Your task to perform on an android device: allow notifications from all sites in the chrome app Image 0: 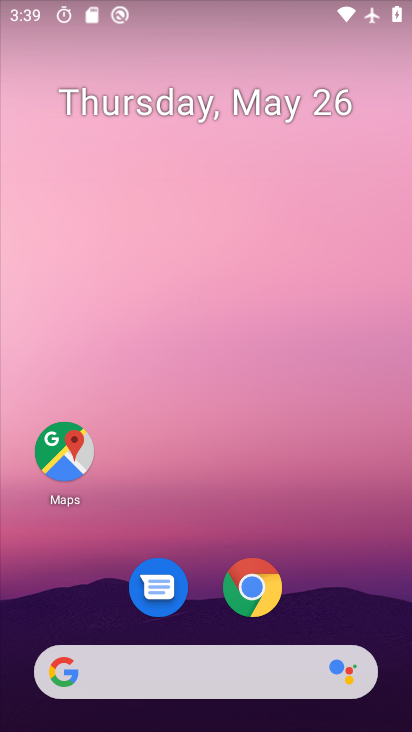
Step 0: drag from (260, 682) to (81, 52)
Your task to perform on an android device: allow notifications from all sites in the chrome app Image 1: 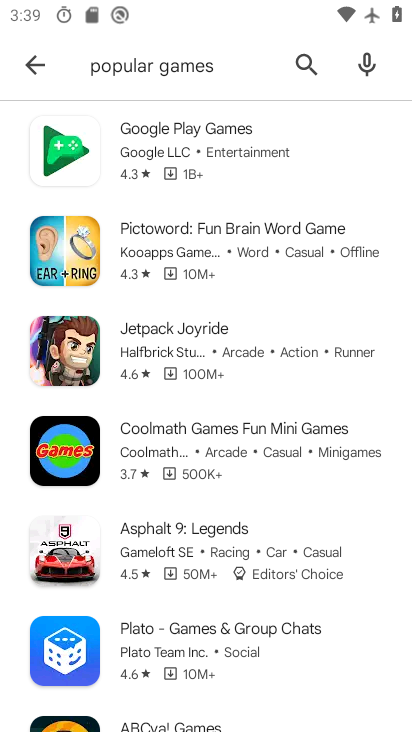
Step 1: drag from (280, 516) to (213, 62)
Your task to perform on an android device: allow notifications from all sites in the chrome app Image 2: 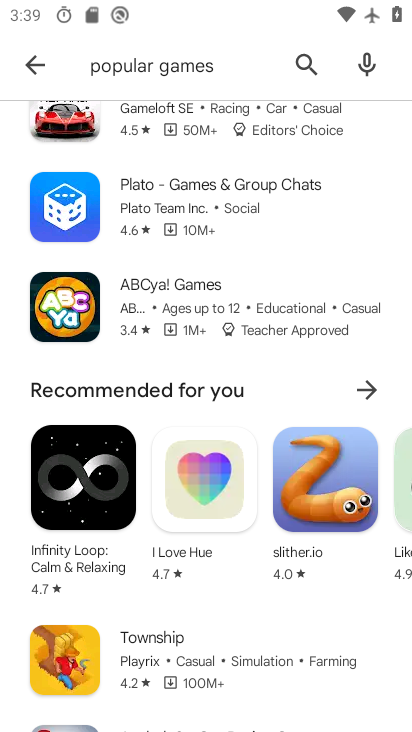
Step 2: click (15, 50)
Your task to perform on an android device: allow notifications from all sites in the chrome app Image 3: 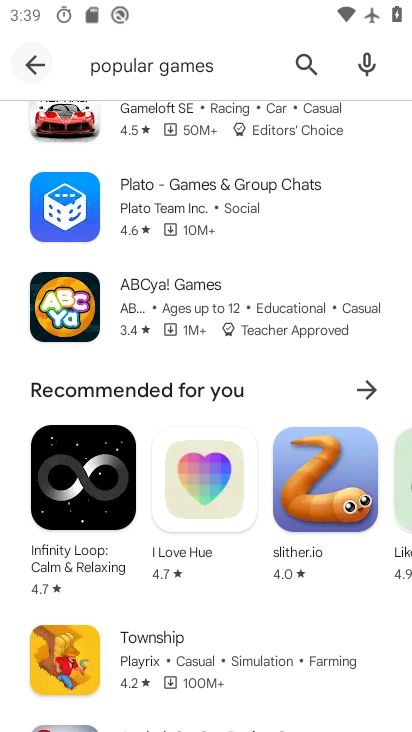
Step 3: click (25, 58)
Your task to perform on an android device: allow notifications from all sites in the chrome app Image 4: 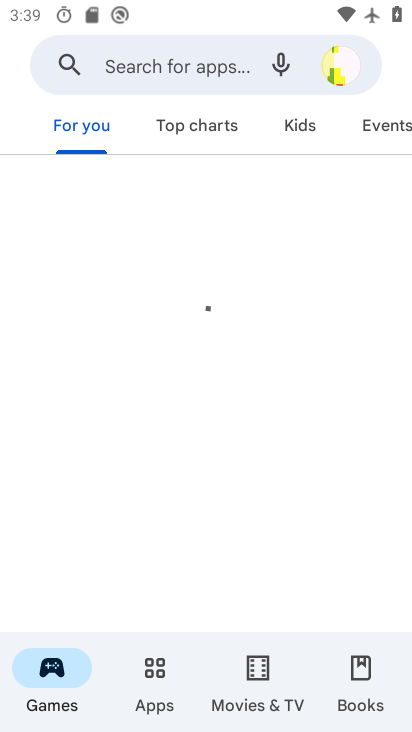
Step 4: click (28, 56)
Your task to perform on an android device: allow notifications from all sites in the chrome app Image 5: 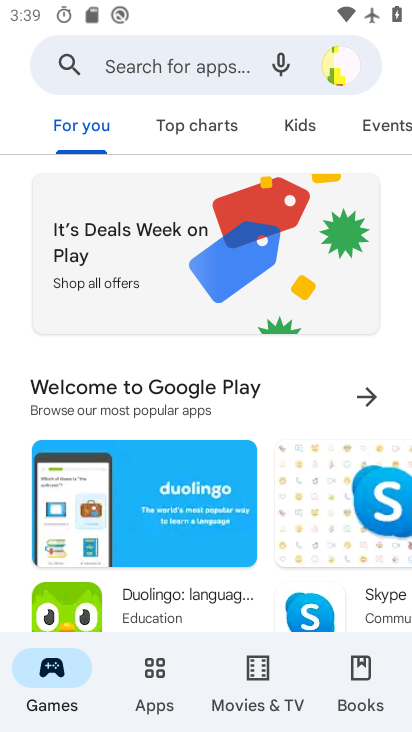
Step 5: press back button
Your task to perform on an android device: allow notifications from all sites in the chrome app Image 6: 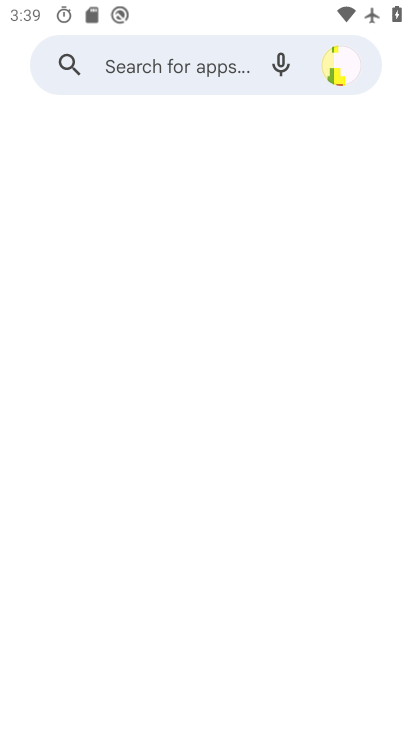
Step 6: press back button
Your task to perform on an android device: allow notifications from all sites in the chrome app Image 7: 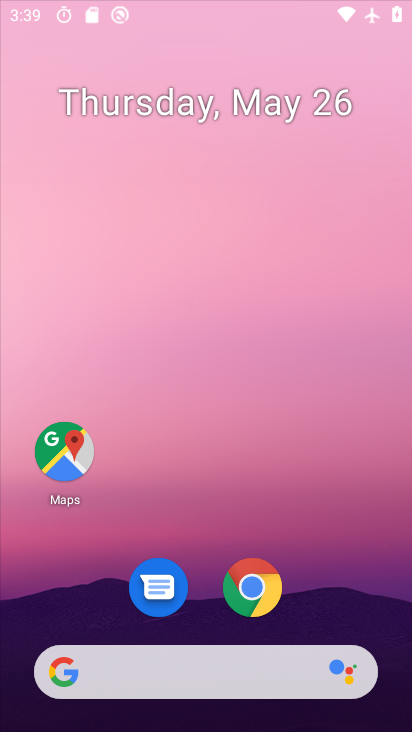
Step 7: press back button
Your task to perform on an android device: allow notifications from all sites in the chrome app Image 8: 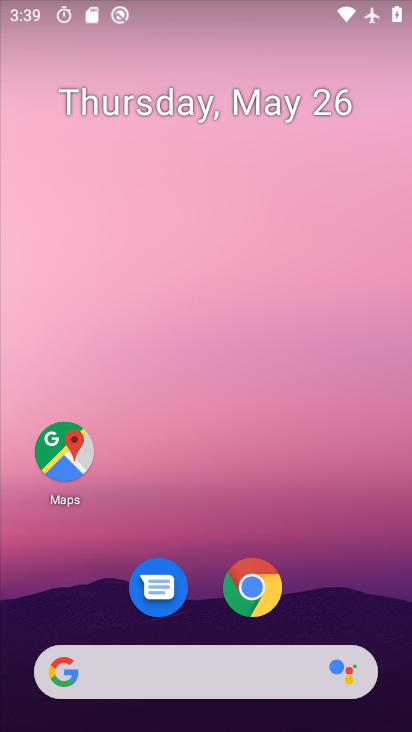
Step 8: drag from (271, 698) to (114, 106)
Your task to perform on an android device: allow notifications from all sites in the chrome app Image 9: 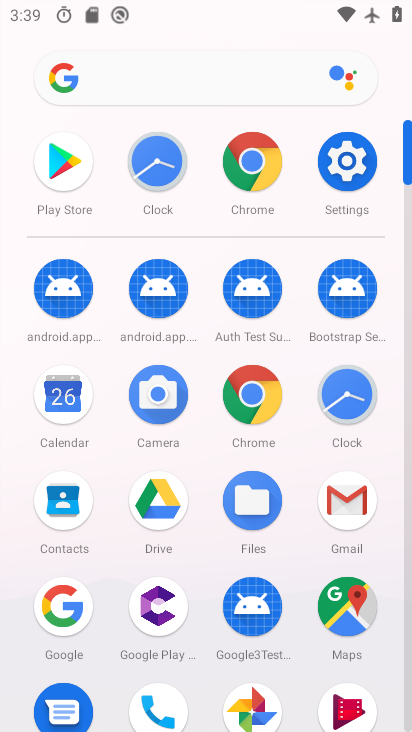
Step 9: click (254, 394)
Your task to perform on an android device: allow notifications from all sites in the chrome app Image 10: 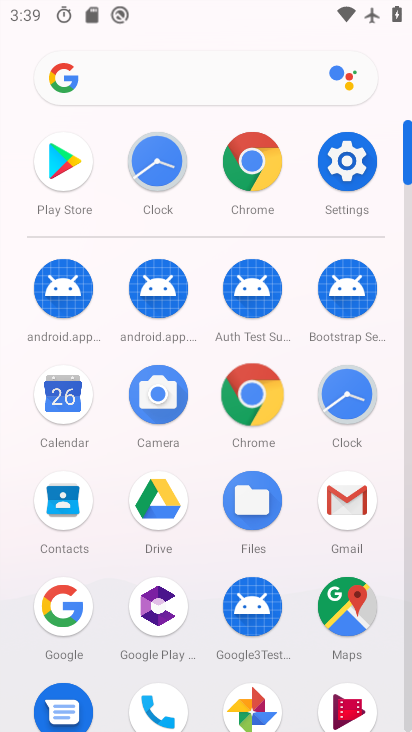
Step 10: click (253, 394)
Your task to perform on an android device: allow notifications from all sites in the chrome app Image 11: 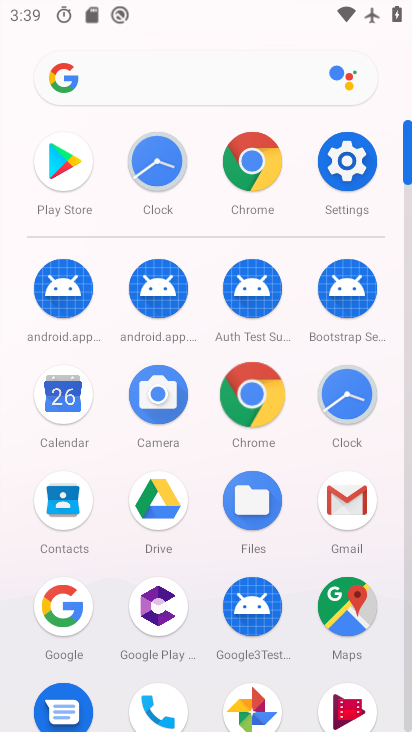
Step 11: click (253, 394)
Your task to perform on an android device: allow notifications from all sites in the chrome app Image 12: 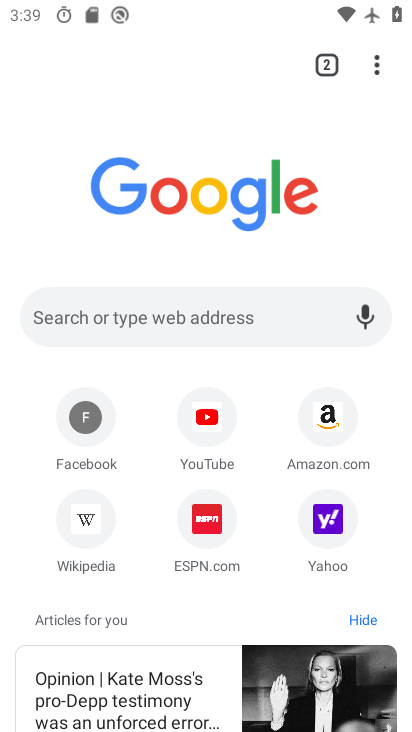
Step 12: drag from (378, 71) to (119, 555)
Your task to perform on an android device: allow notifications from all sites in the chrome app Image 13: 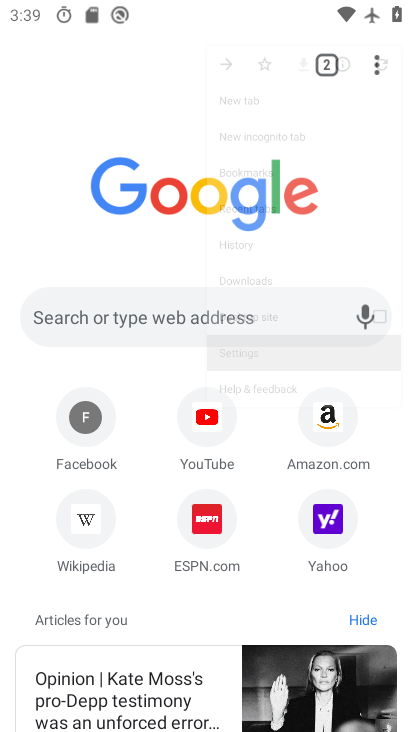
Step 13: click (103, 550)
Your task to perform on an android device: allow notifications from all sites in the chrome app Image 14: 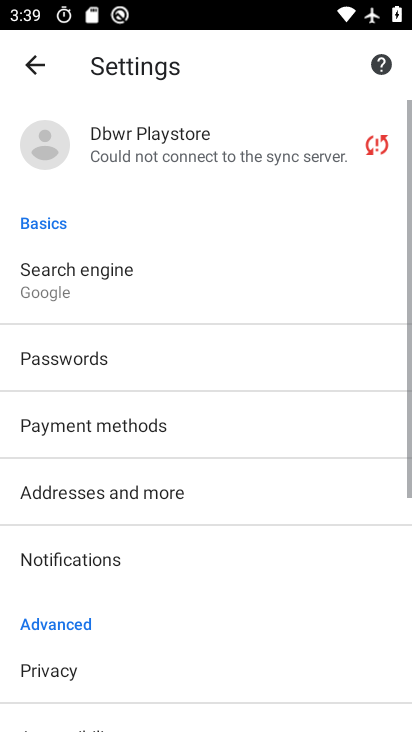
Step 14: drag from (71, 459) to (61, 230)
Your task to perform on an android device: allow notifications from all sites in the chrome app Image 15: 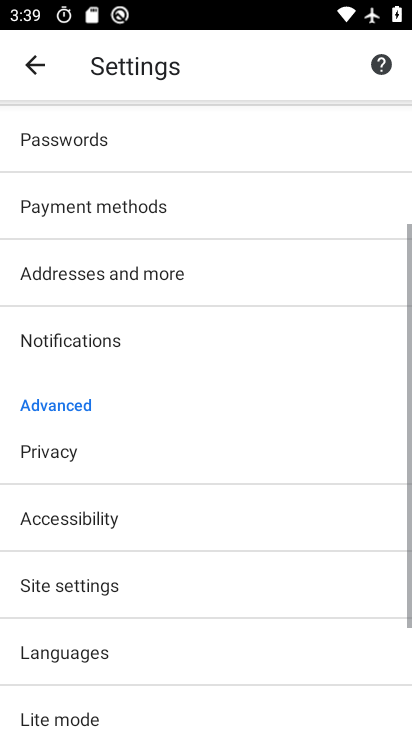
Step 15: drag from (118, 472) to (93, 97)
Your task to perform on an android device: allow notifications from all sites in the chrome app Image 16: 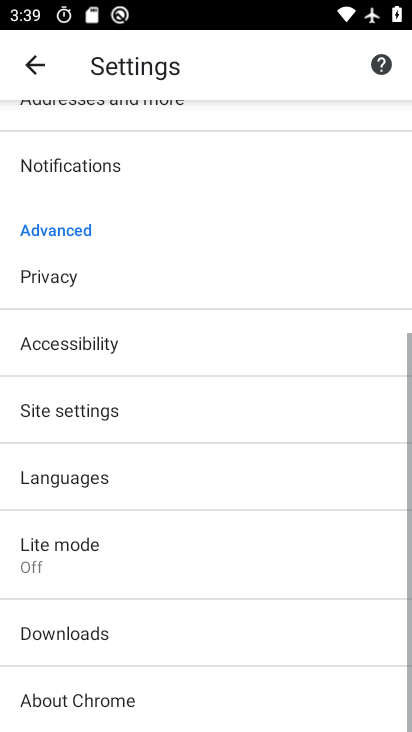
Step 16: drag from (110, 394) to (81, 15)
Your task to perform on an android device: allow notifications from all sites in the chrome app Image 17: 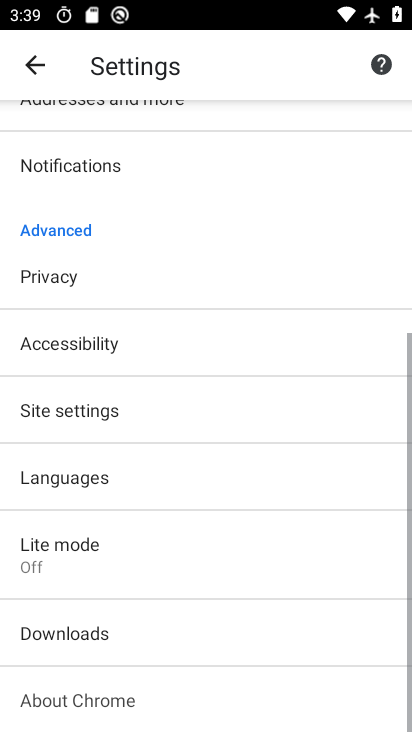
Step 17: drag from (85, 301) to (89, 12)
Your task to perform on an android device: allow notifications from all sites in the chrome app Image 18: 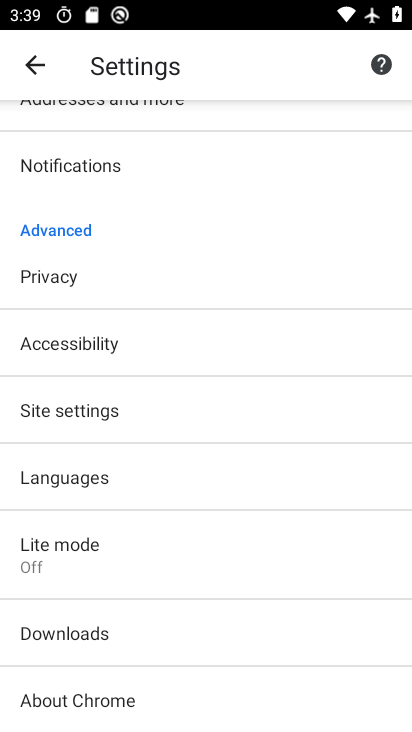
Step 18: click (62, 413)
Your task to perform on an android device: allow notifications from all sites in the chrome app Image 19: 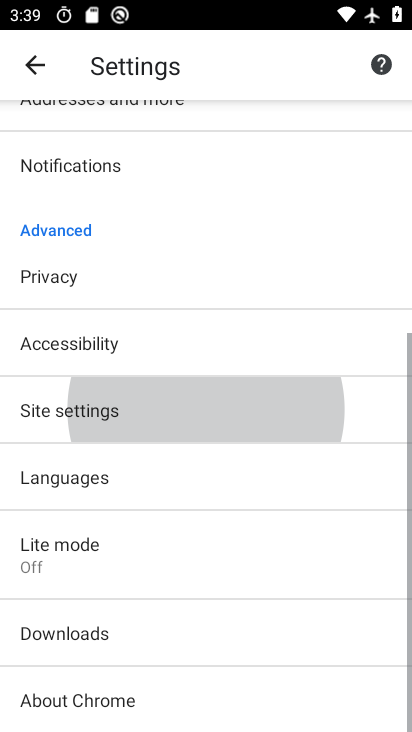
Step 19: click (63, 413)
Your task to perform on an android device: allow notifications from all sites in the chrome app Image 20: 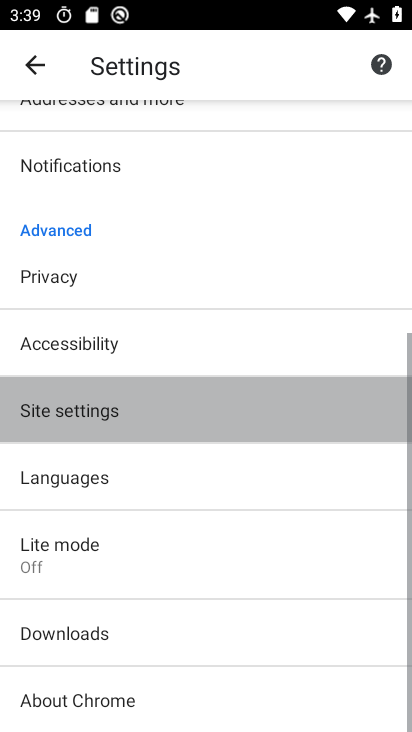
Step 20: click (63, 413)
Your task to perform on an android device: allow notifications from all sites in the chrome app Image 21: 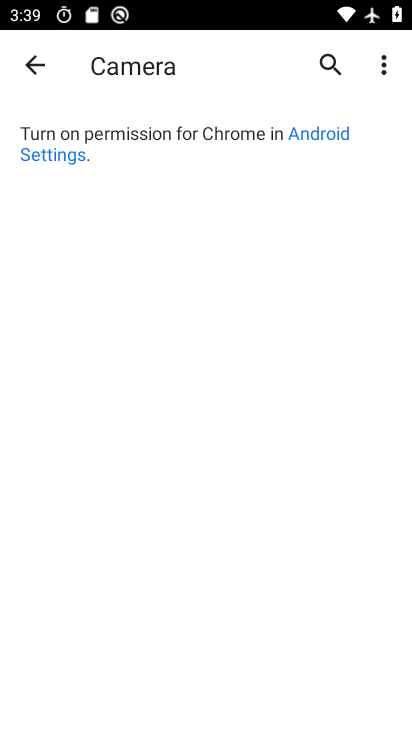
Step 21: click (23, 65)
Your task to perform on an android device: allow notifications from all sites in the chrome app Image 22: 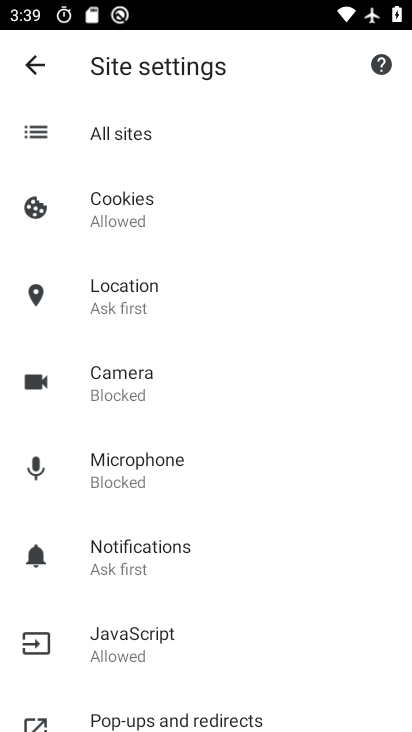
Step 22: click (112, 128)
Your task to perform on an android device: allow notifications from all sites in the chrome app Image 23: 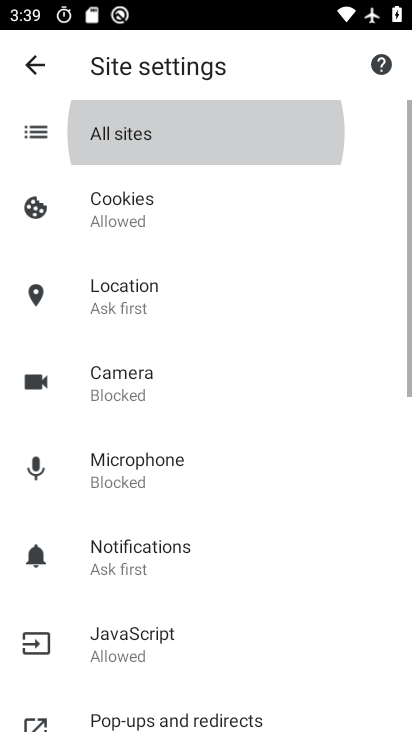
Step 23: click (117, 117)
Your task to perform on an android device: allow notifications from all sites in the chrome app Image 24: 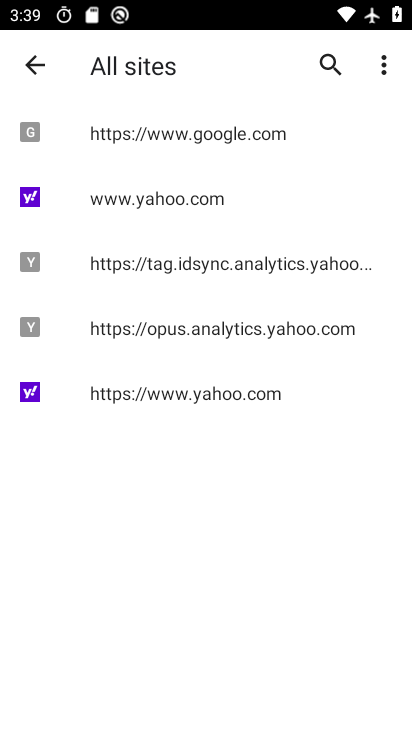
Step 24: click (179, 136)
Your task to perform on an android device: allow notifications from all sites in the chrome app Image 25: 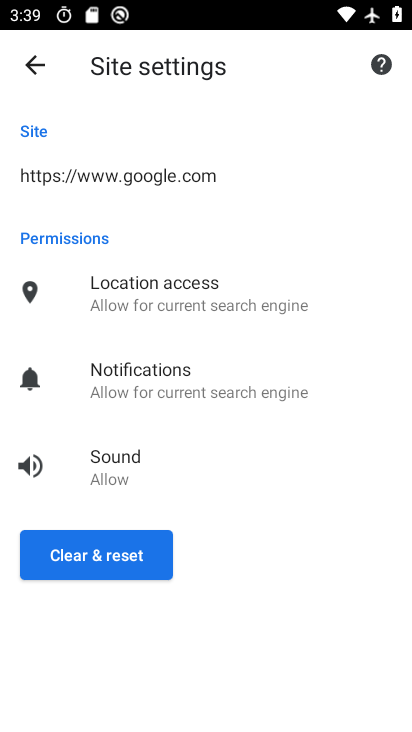
Step 25: click (117, 544)
Your task to perform on an android device: allow notifications from all sites in the chrome app Image 26: 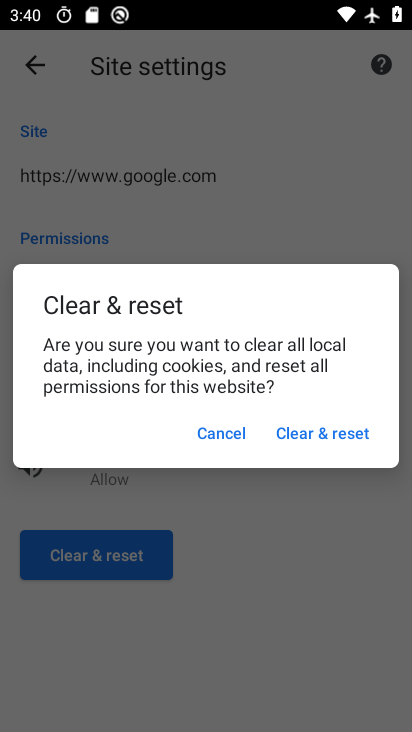
Step 26: task complete